Your task to perform on an android device: Open ESPN.com Image 0: 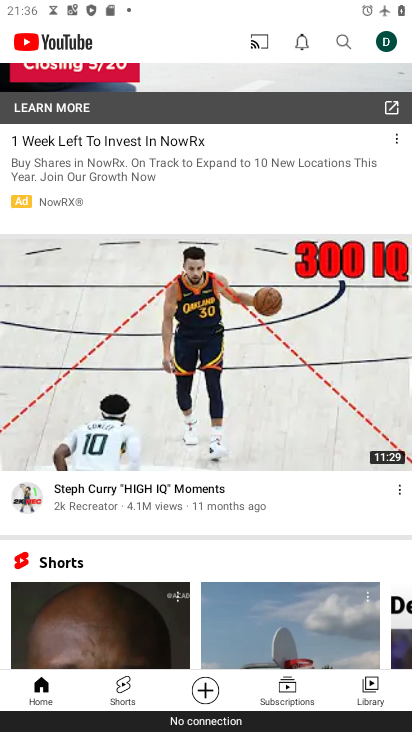
Step 0: press home button
Your task to perform on an android device: Open ESPN.com Image 1: 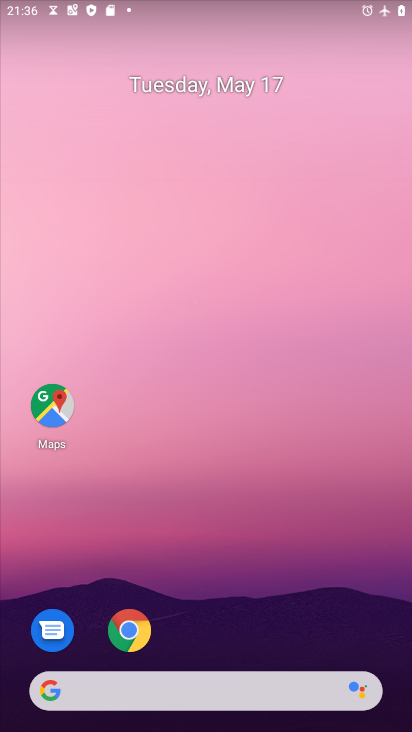
Step 1: click (139, 616)
Your task to perform on an android device: Open ESPN.com Image 2: 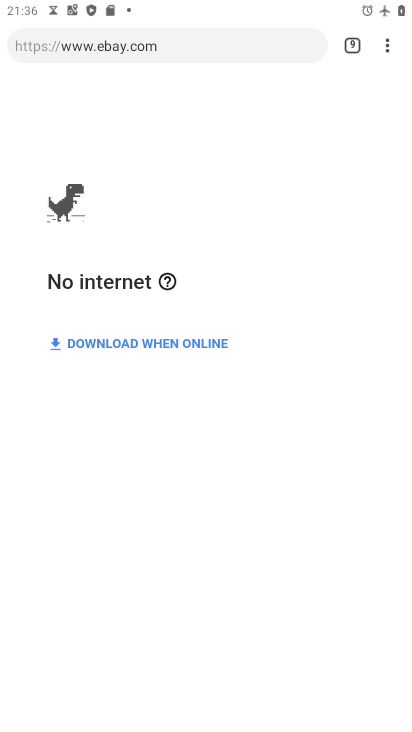
Step 2: click (352, 41)
Your task to perform on an android device: Open ESPN.com Image 3: 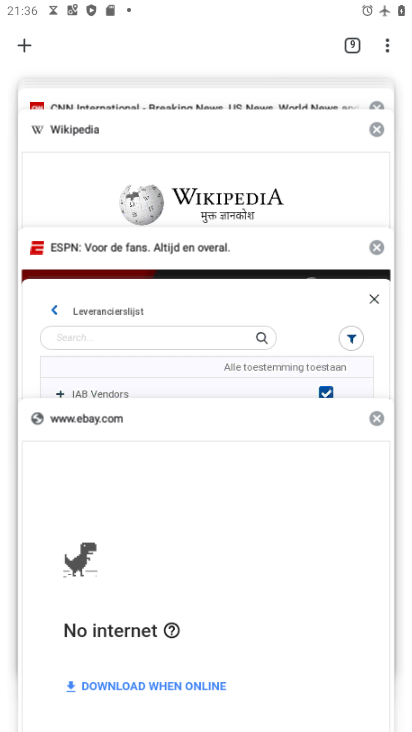
Step 3: click (77, 282)
Your task to perform on an android device: Open ESPN.com Image 4: 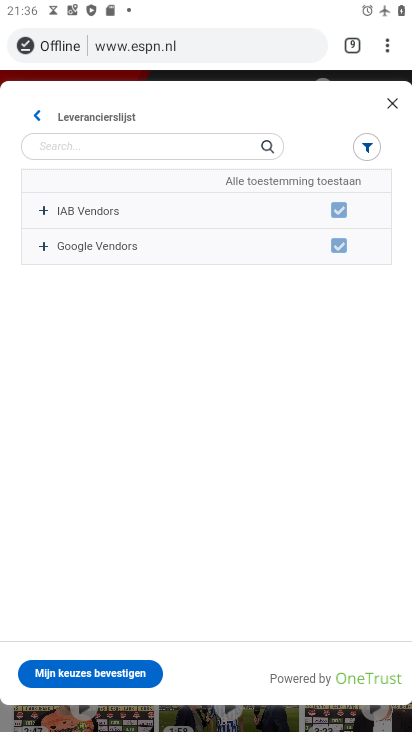
Step 4: task complete